Your task to perform on an android device: Open CNN.com Image 0: 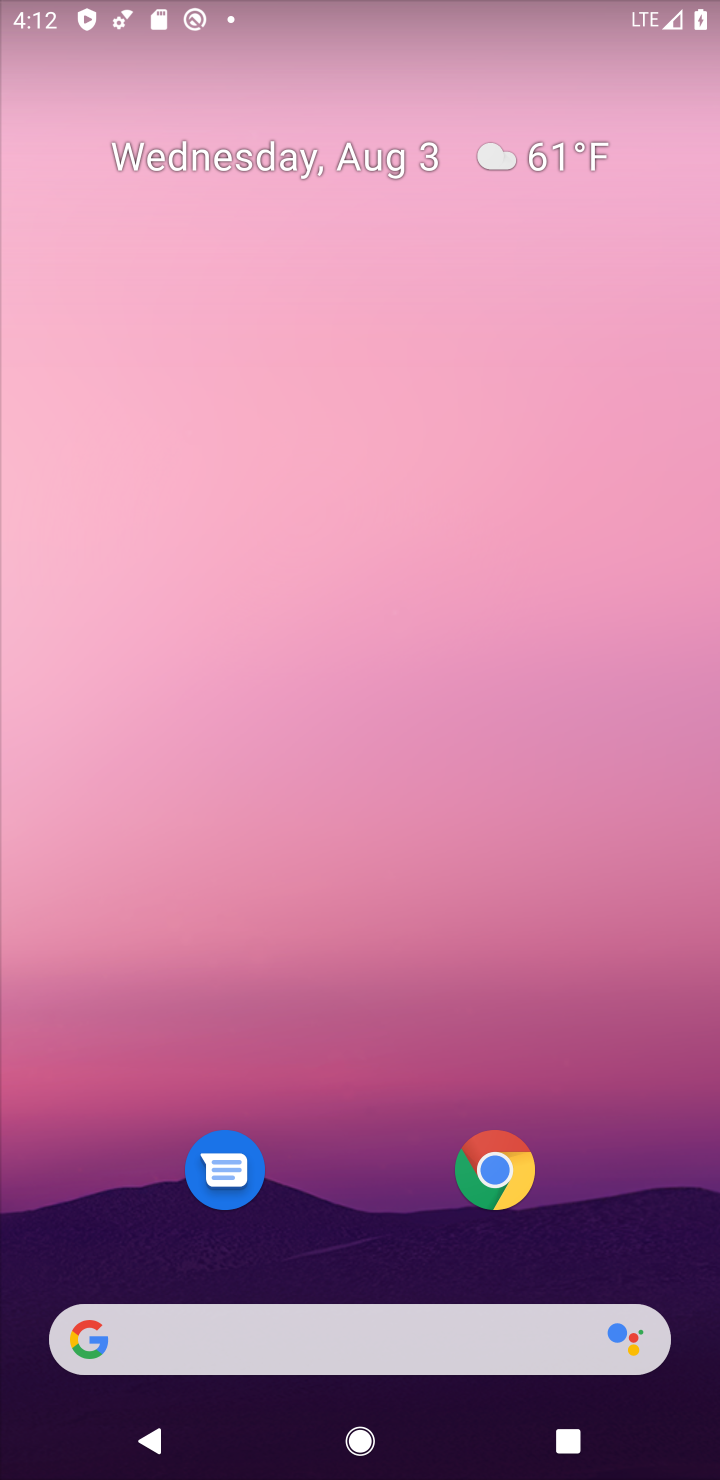
Step 0: click (487, 1173)
Your task to perform on an android device: Open CNN.com Image 1: 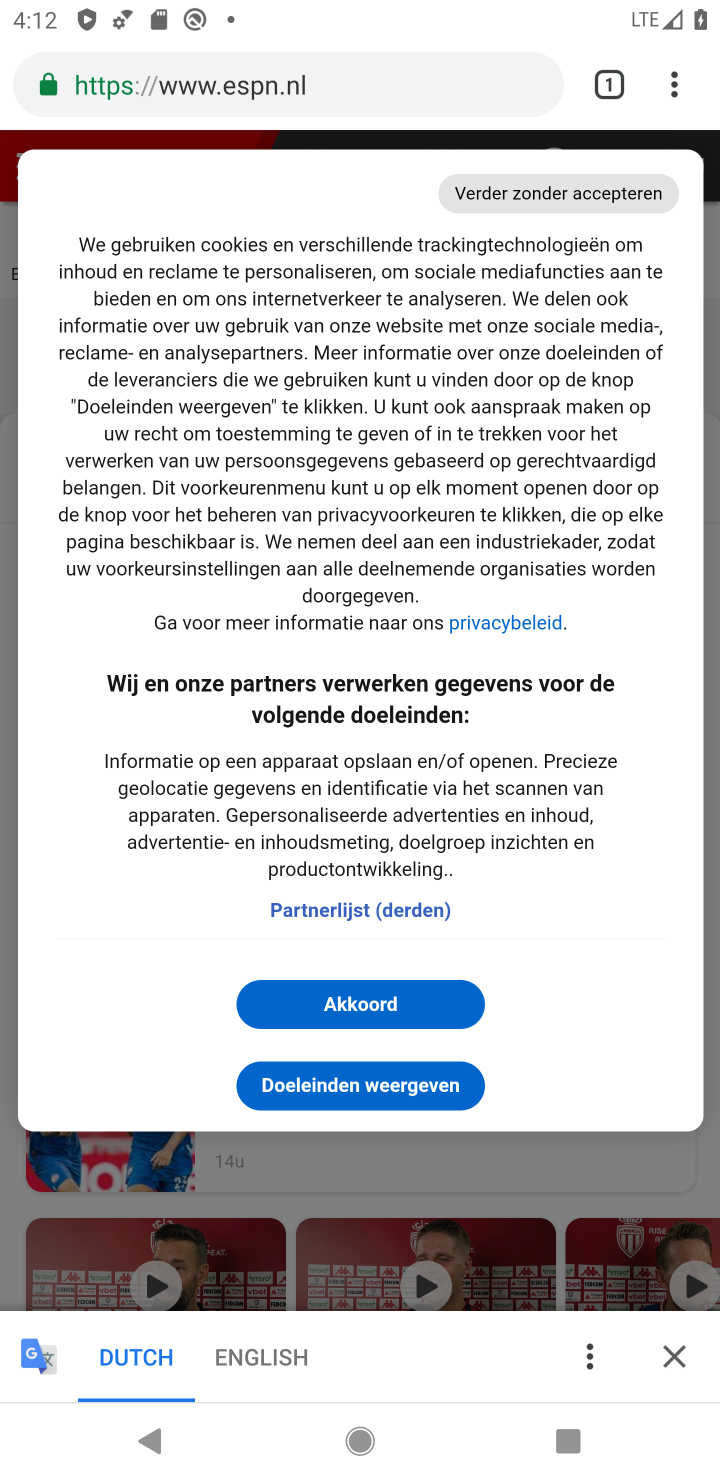
Step 1: click (272, 75)
Your task to perform on an android device: Open CNN.com Image 2: 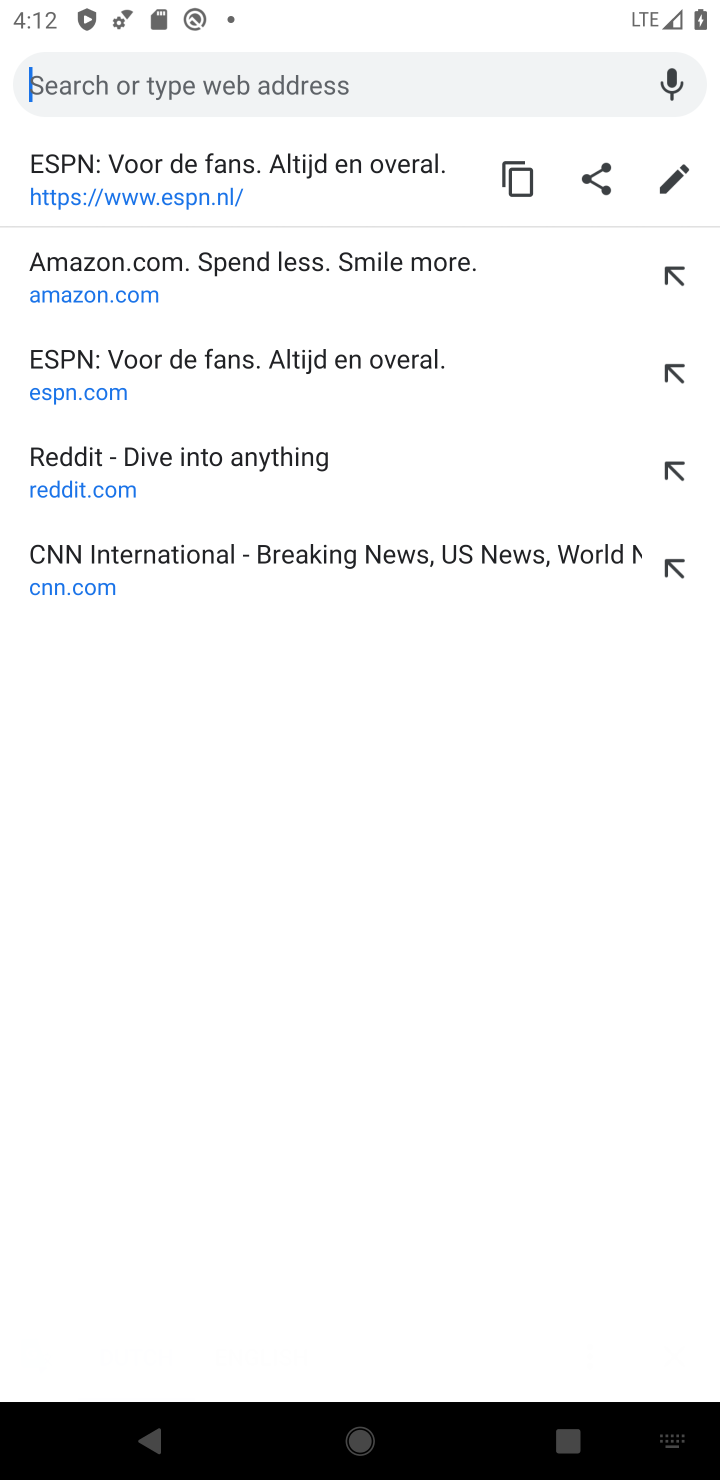
Step 2: click (180, 537)
Your task to perform on an android device: Open CNN.com Image 3: 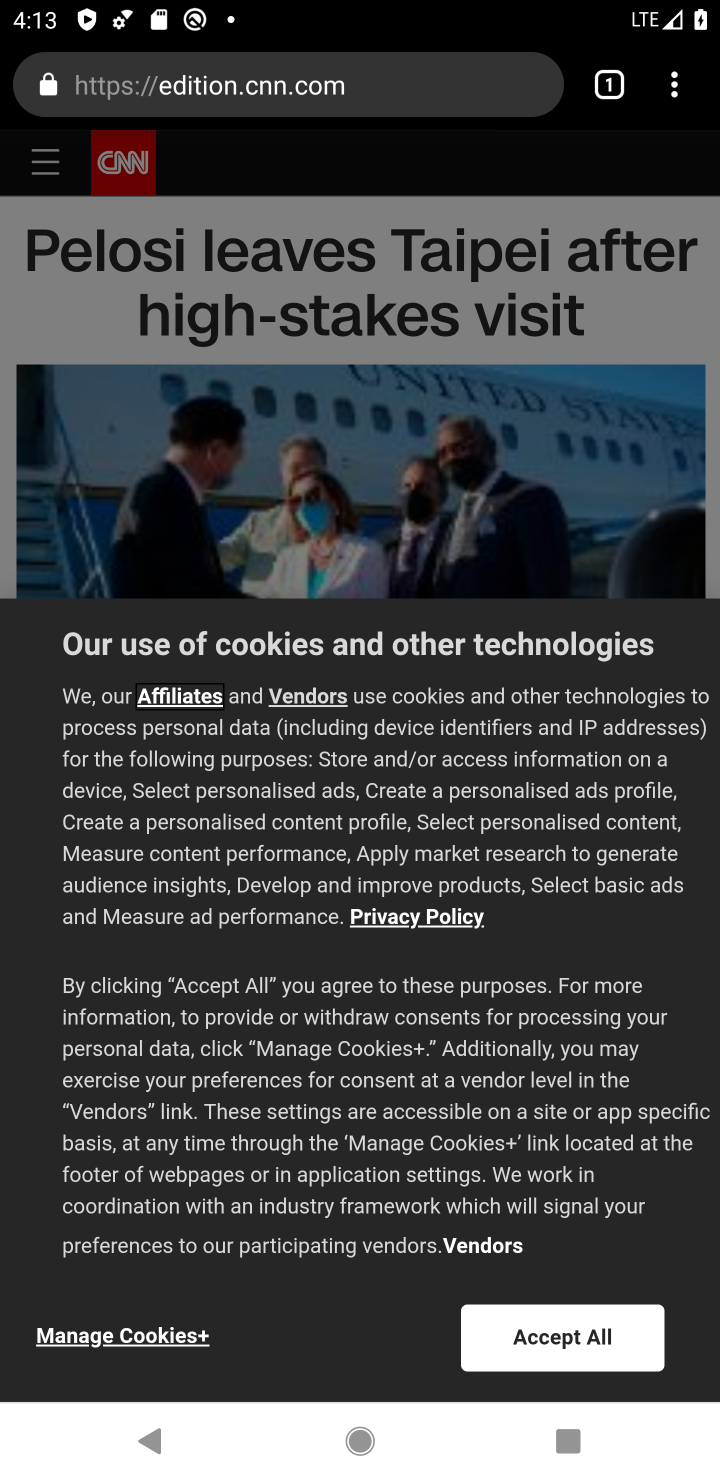
Step 3: task complete